Your task to perform on an android device: Is it going to rain tomorrow? Image 0: 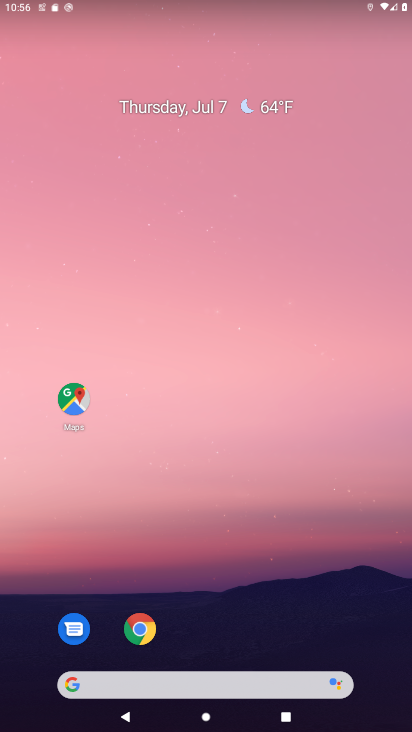
Step 0: drag from (244, 607) to (179, 34)
Your task to perform on an android device: Is it going to rain tomorrow? Image 1: 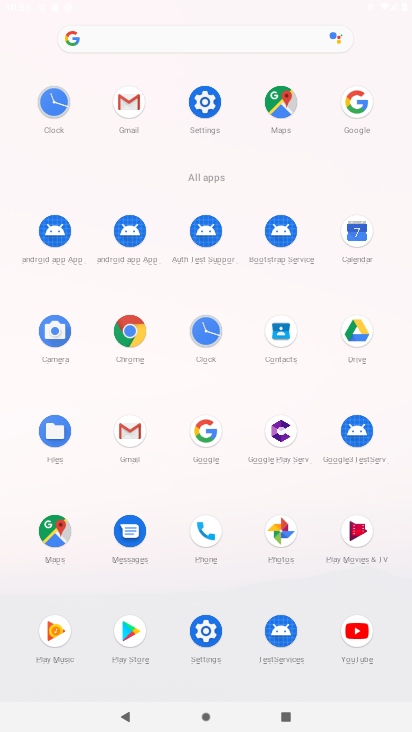
Step 1: click (352, 101)
Your task to perform on an android device: Is it going to rain tomorrow? Image 2: 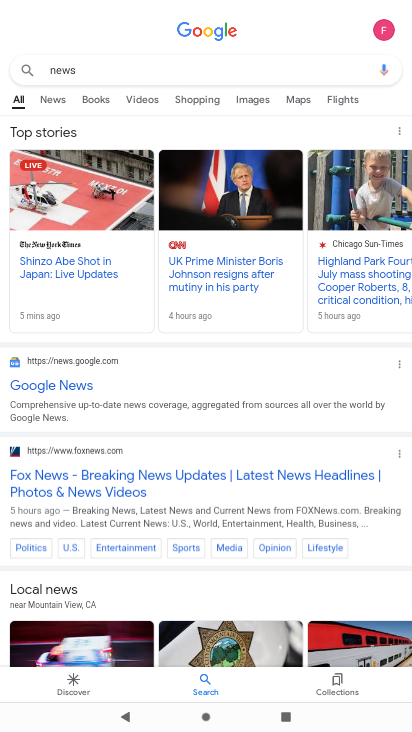
Step 2: click (318, 67)
Your task to perform on an android device: Is it going to rain tomorrow? Image 3: 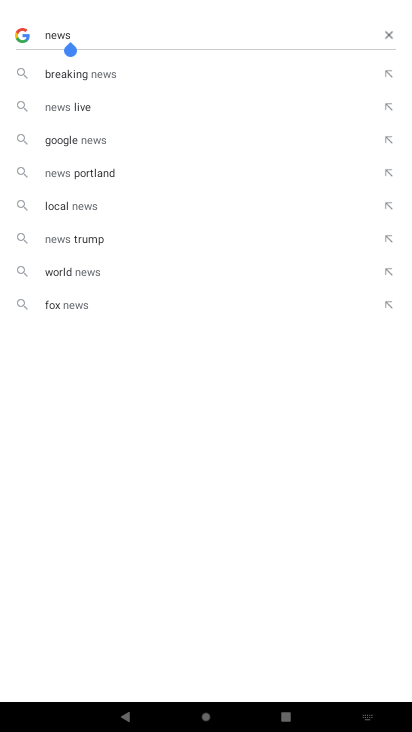
Step 3: click (389, 29)
Your task to perform on an android device: Is it going to rain tomorrow? Image 4: 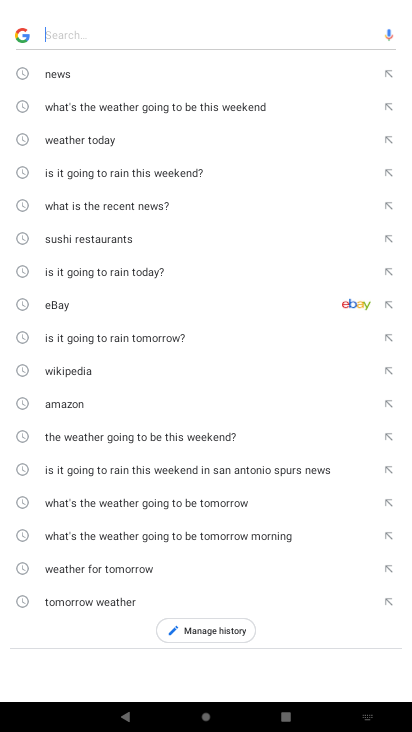
Step 4: type "Is it going to rain tomorrow"
Your task to perform on an android device: Is it going to rain tomorrow? Image 5: 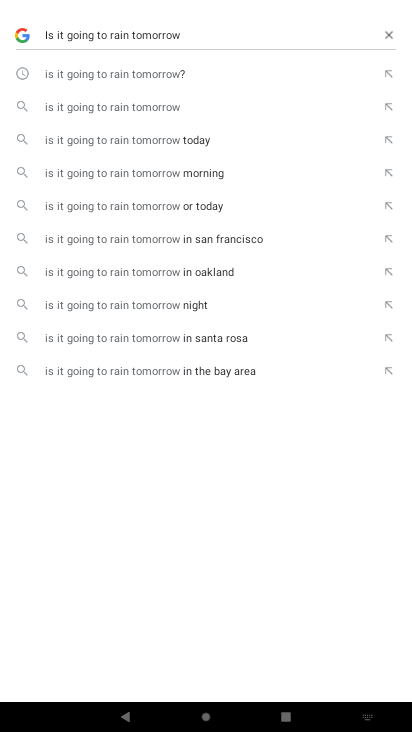
Step 5: click (131, 75)
Your task to perform on an android device: Is it going to rain tomorrow? Image 6: 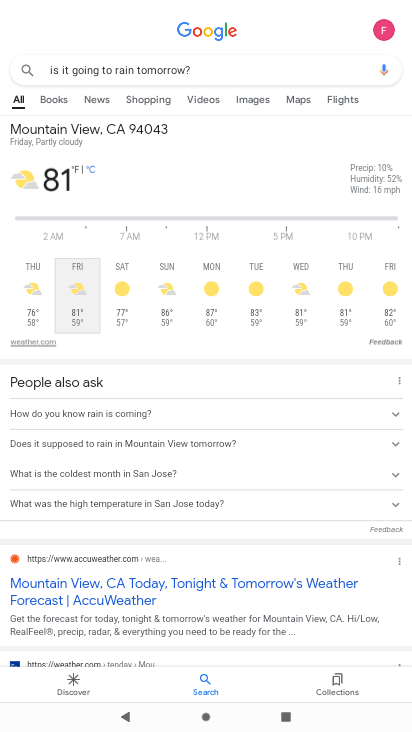
Step 6: task complete